Your task to perform on an android device: What's the weather? Image 0: 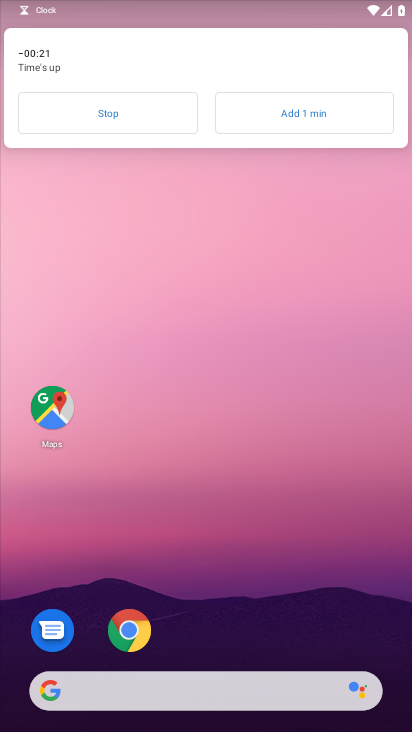
Step 0: click (158, 115)
Your task to perform on an android device: What's the weather? Image 1: 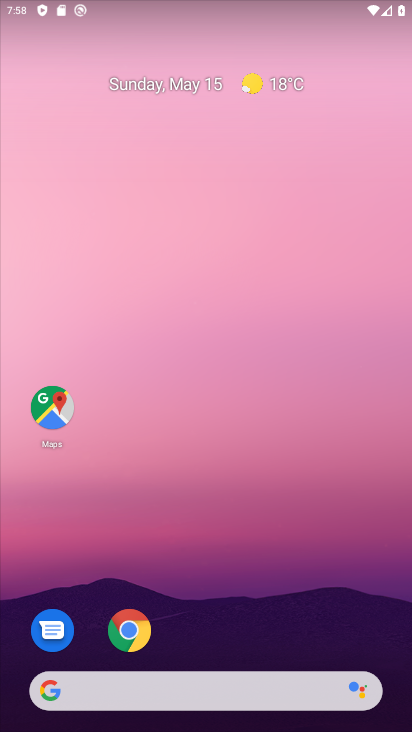
Step 1: drag from (230, 606) to (308, 158)
Your task to perform on an android device: What's the weather? Image 2: 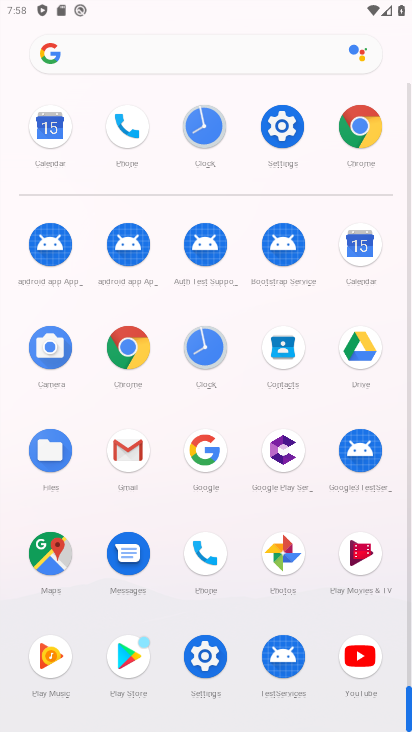
Step 2: click (234, 62)
Your task to perform on an android device: What's the weather? Image 3: 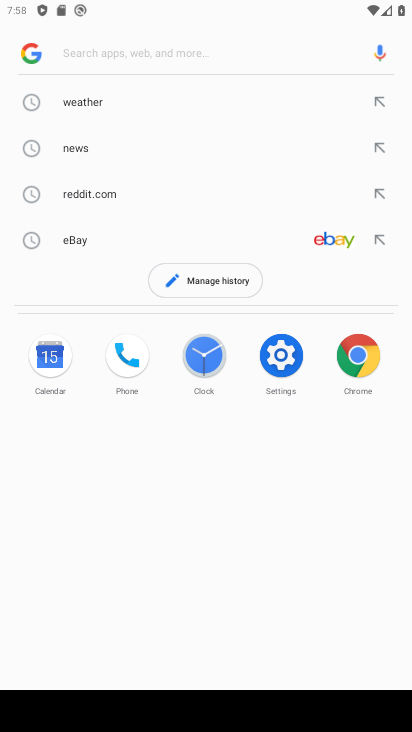
Step 3: type "waether "
Your task to perform on an android device: What's the weather? Image 4: 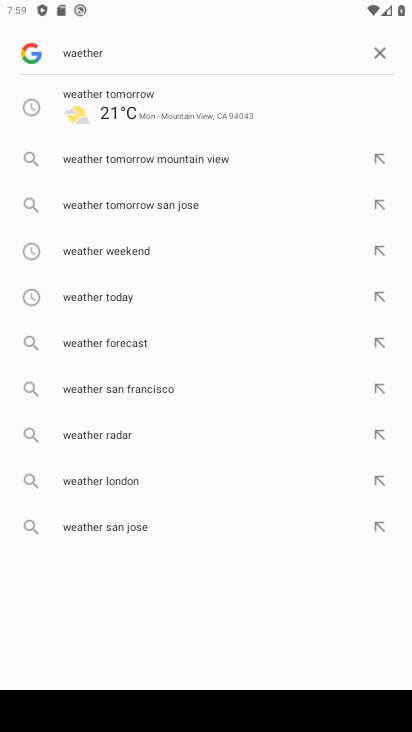
Step 4: click (172, 98)
Your task to perform on an android device: What's the weather? Image 5: 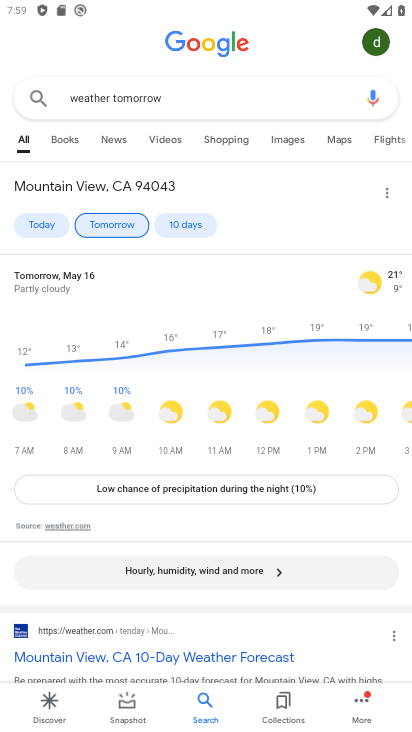
Step 5: click (192, 95)
Your task to perform on an android device: What's the weather? Image 6: 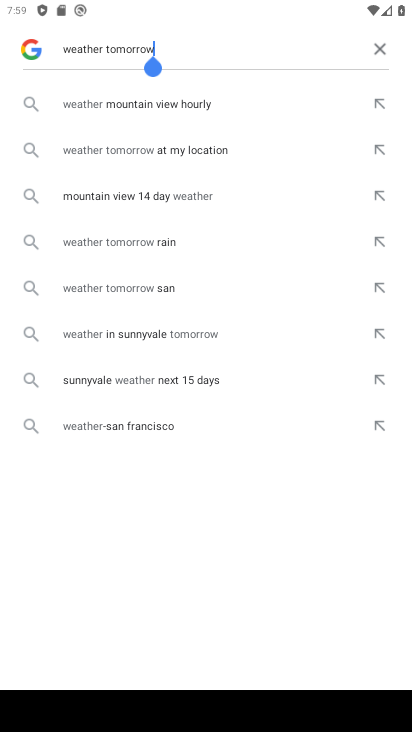
Step 6: click (379, 49)
Your task to perform on an android device: What's the weather? Image 7: 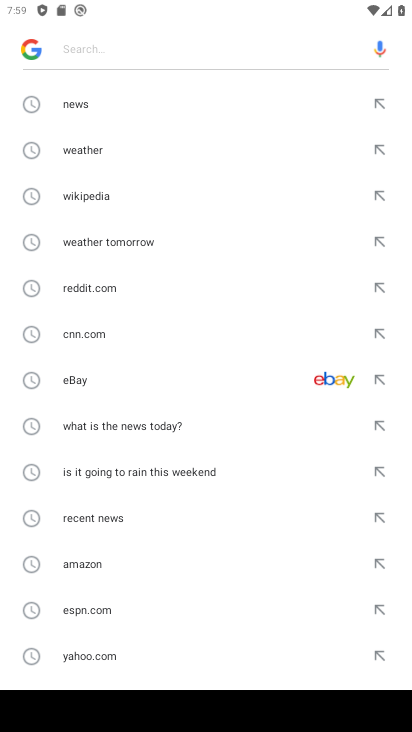
Step 7: type "weather"
Your task to perform on an android device: What's the weather? Image 8: 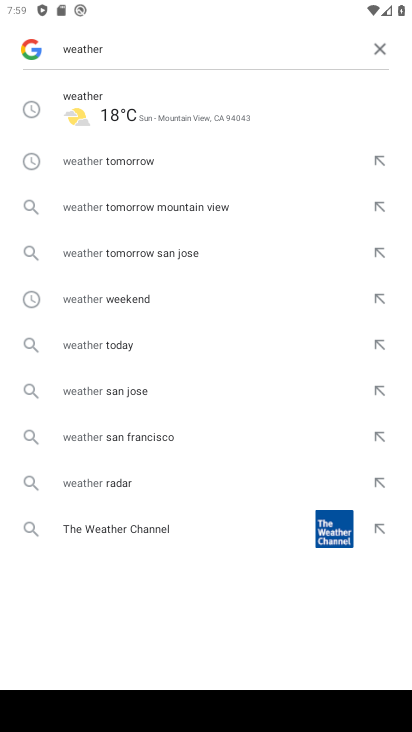
Step 8: click (382, 43)
Your task to perform on an android device: What's the weather? Image 9: 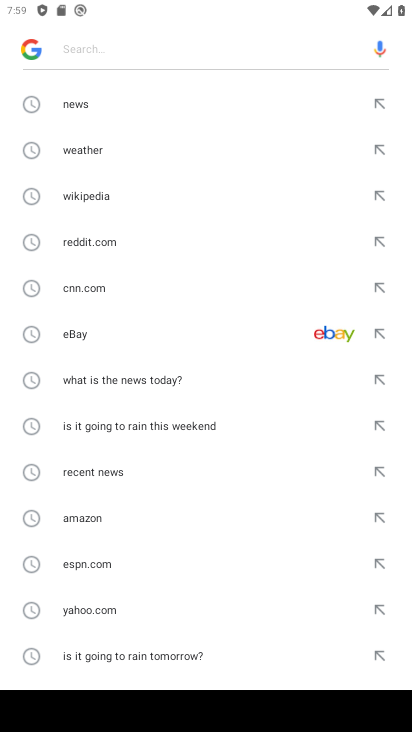
Step 9: click (125, 146)
Your task to perform on an android device: What's the weather? Image 10: 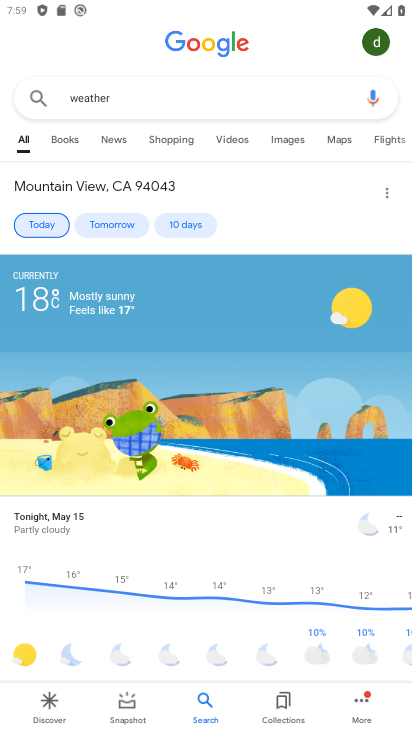
Step 10: task complete